Your task to perform on an android device: find snoozed emails in the gmail app Image 0: 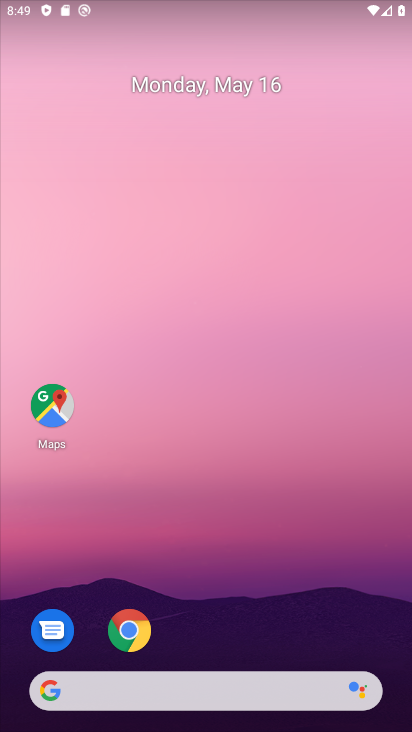
Step 0: drag from (203, 545) to (274, 130)
Your task to perform on an android device: find snoozed emails in the gmail app Image 1: 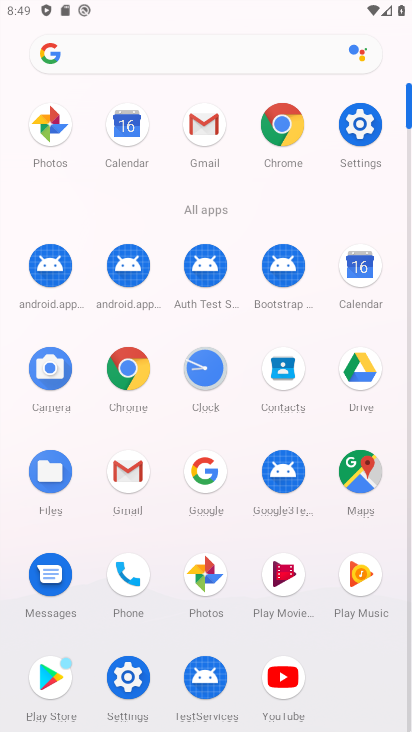
Step 1: click (121, 494)
Your task to perform on an android device: find snoozed emails in the gmail app Image 2: 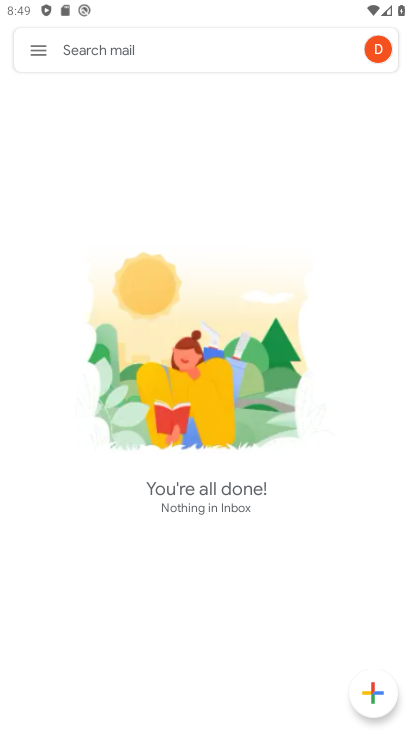
Step 2: click (46, 52)
Your task to perform on an android device: find snoozed emails in the gmail app Image 3: 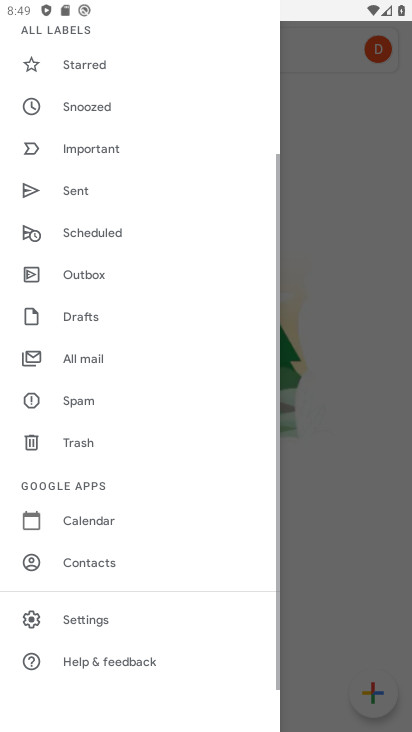
Step 3: click (125, 111)
Your task to perform on an android device: find snoozed emails in the gmail app Image 4: 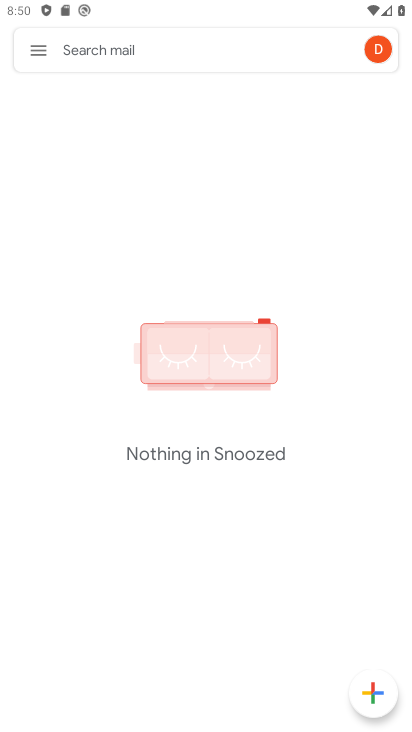
Step 4: task complete